Your task to perform on an android device: make emails show in primary in the gmail app Image 0: 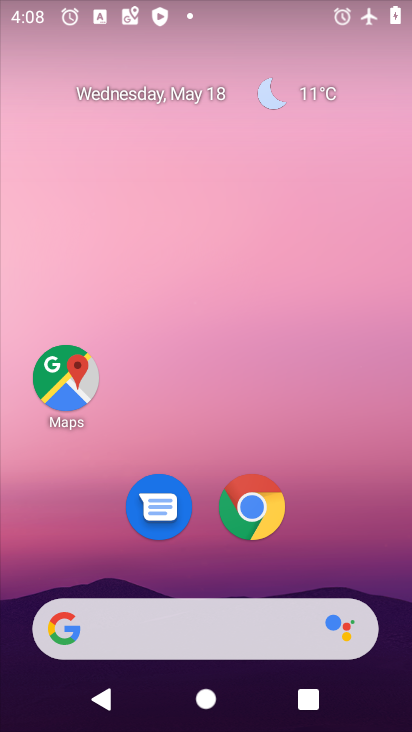
Step 0: drag from (397, 611) to (333, 163)
Your task to perform on an android device: make emails show in primary in the gmail app Image 1: 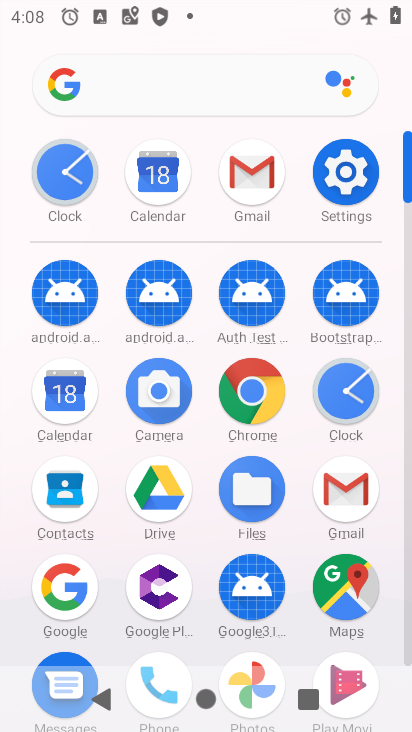
Step 1: click (409, 650)
Your task to perform on an android device: make emails show in primary in the gmail app Image 2: 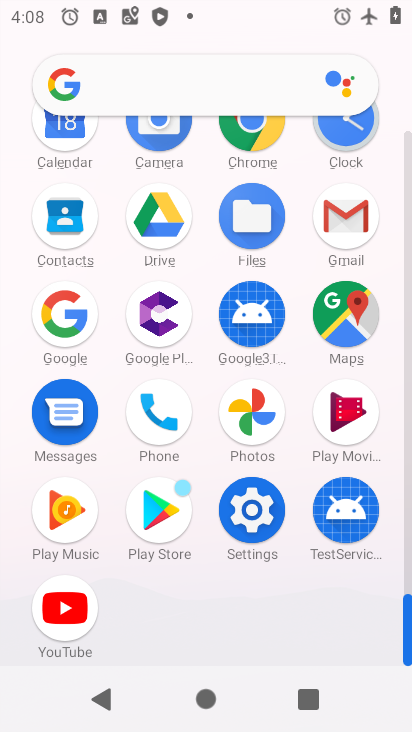
Step 2: click (342, 215)
Your task to perform on an android device: make emails show in primary in the gmail app Image 3: 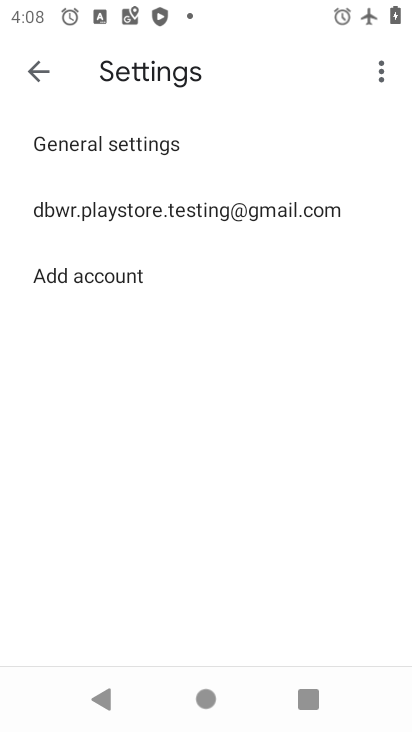
Step 3: click (151, 209)
Your task to perform on an android device: make emails show in primary in the gmail app Image 4: 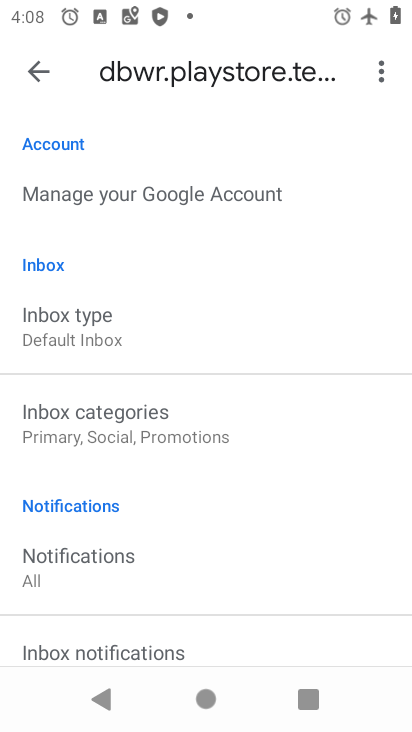
Step 4: click (104, 419)
Your task to perform on an android device: make emails show in primary in the gmail app Image 5: 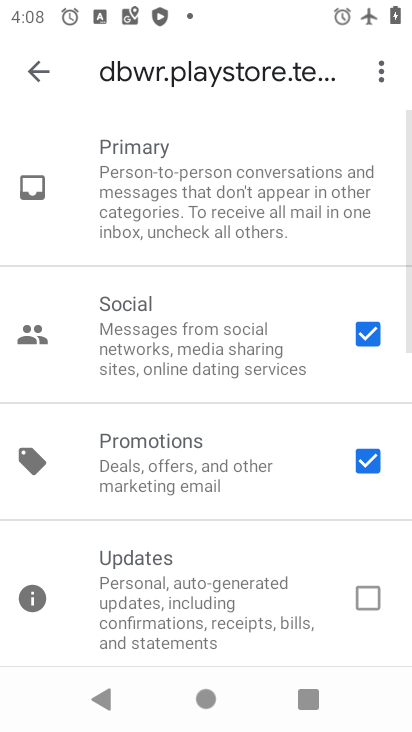
Step 5: click (368, 458)
Your task to perform on an android device: make emails show in primary in the gmail app Image 6: 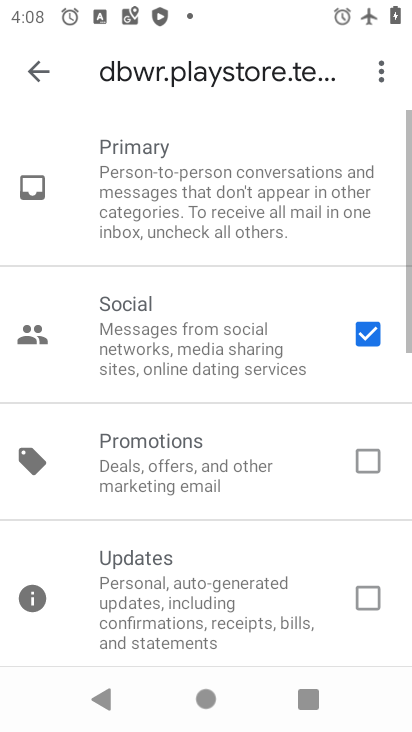
Step 6: click (365, 337)
Your task to perform on an android device: make emails show in primary in the gmail app Image 7: 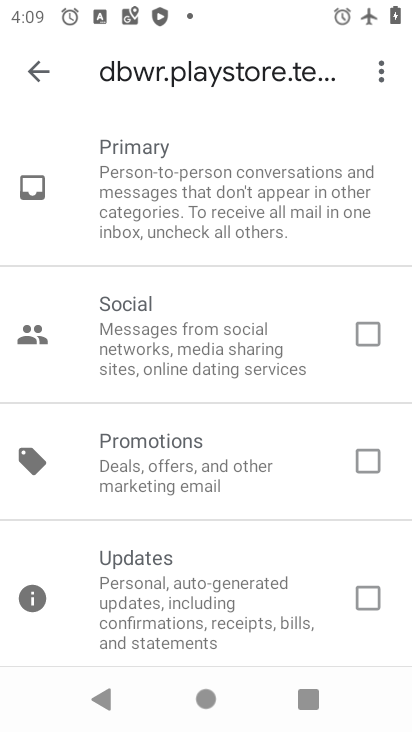
Step 7: task complete